Your task to perform on an android device: Open the Play Movies app and select the watchlist tab. Image 0: 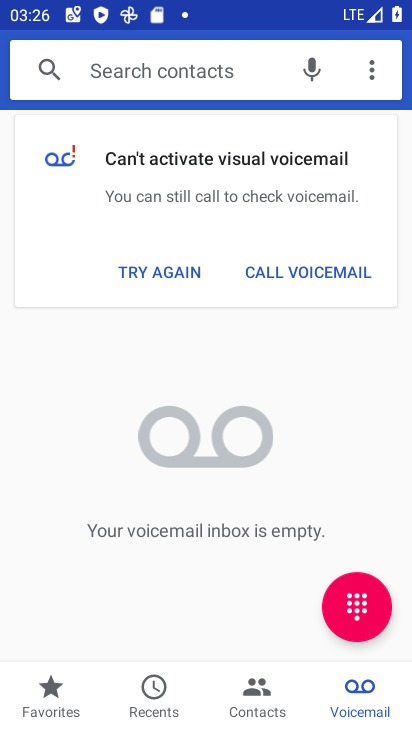
Step 0: press home button
Your task to perform on an android device: Open the Play Movies app and select the watchlist tab. Image 1: 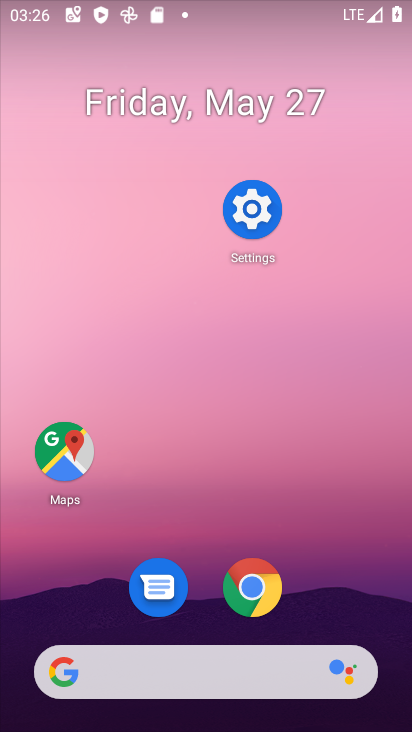
Step 1: drag from (350, 573) to (365, 174)
Your task to perform on an android device: Open the Play Movies app and select the watchlist tab. Image 2: 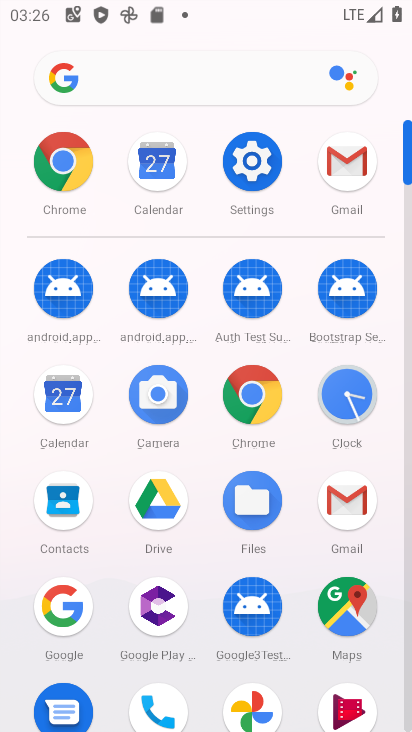
Step 2: drag from (293, 659) to (277, 311)
Your task to perform on an android device: Open the Play Movies app and select the watchlist tab. Image 3: 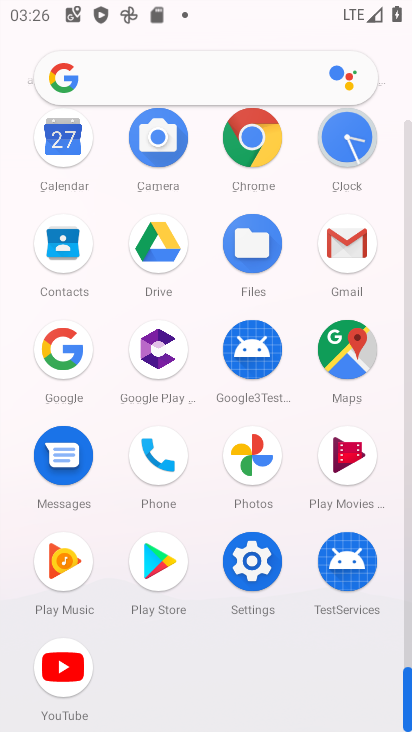
Step 3: click (343, 472)
Your task to perform on an android device: Open the Play Movies app and select the watchlist tab. Image 4: 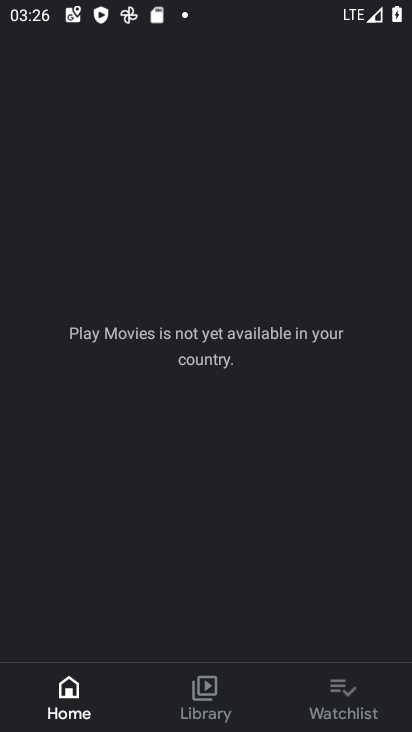
Step 4: click (337, 691)
Your task to perform on an android device: Open the Play Movies app and select the watchlist tab. Image 5: 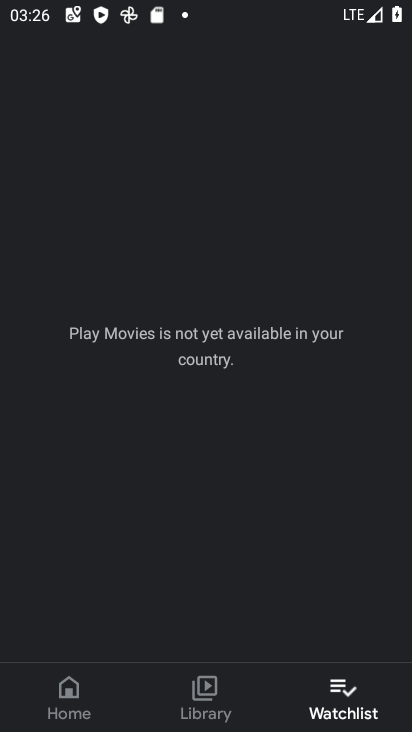
Step 5: task complete